Your task to perform on an android device: check storage Image 0: 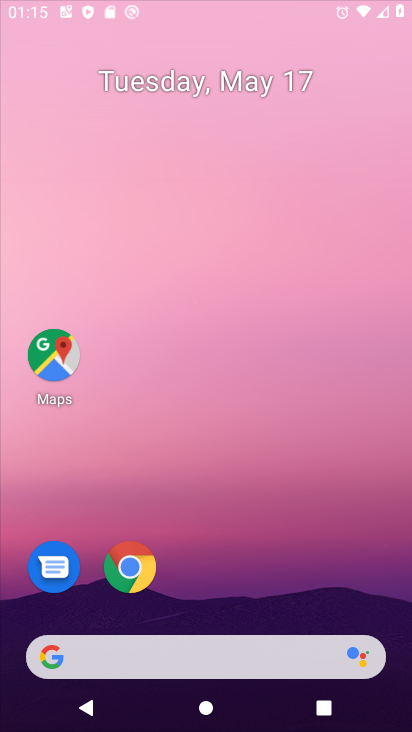
Step 0: drag from (291, 552) to (171, 165)
Your task to perform on an android device: check storage Image 1: 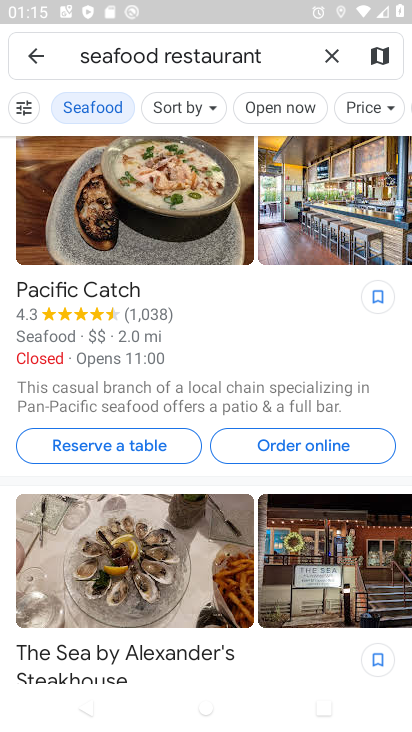
Step 1: press home button
Your task to perform on an android device: check storage Image 2: 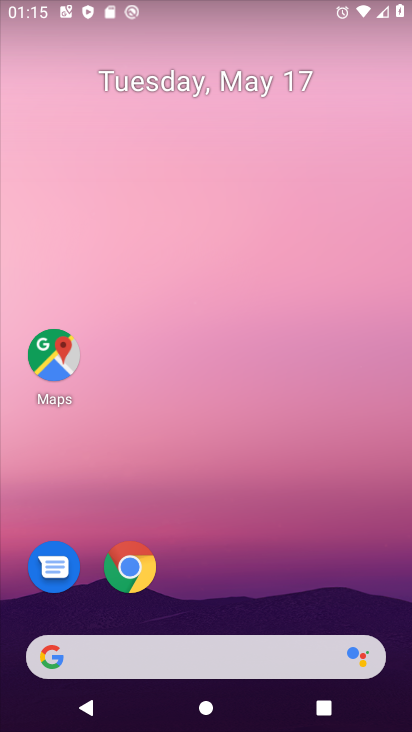
Step 2: drag from (182, 432) to (119, 93)
Your task to perform on an android device: check storage Image 3: 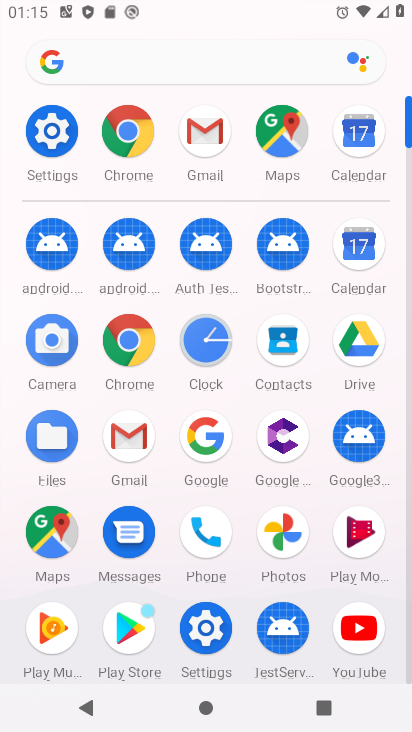
Step 3: click (54, 126)
Your task to perform on an android device: check storage Image 4: 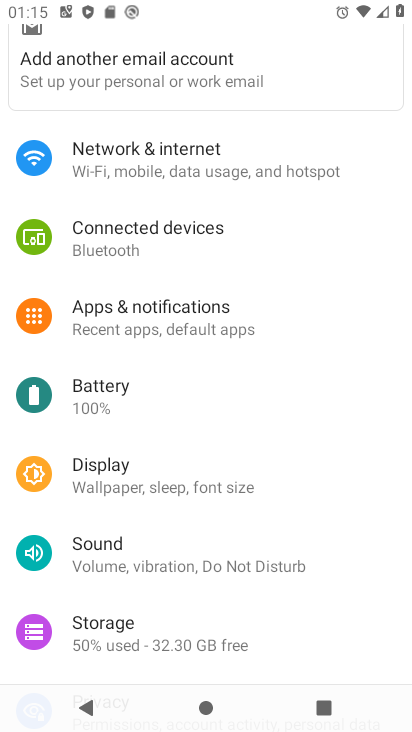
Step 4: click (105, 613)
Your task to perform on an android device: check storage Image 5: 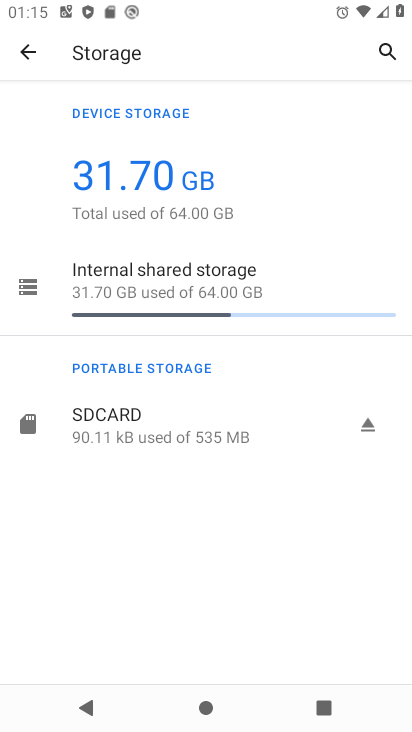
Step 5: task complete